Your task to perform on an android device: Check the news Image 0: 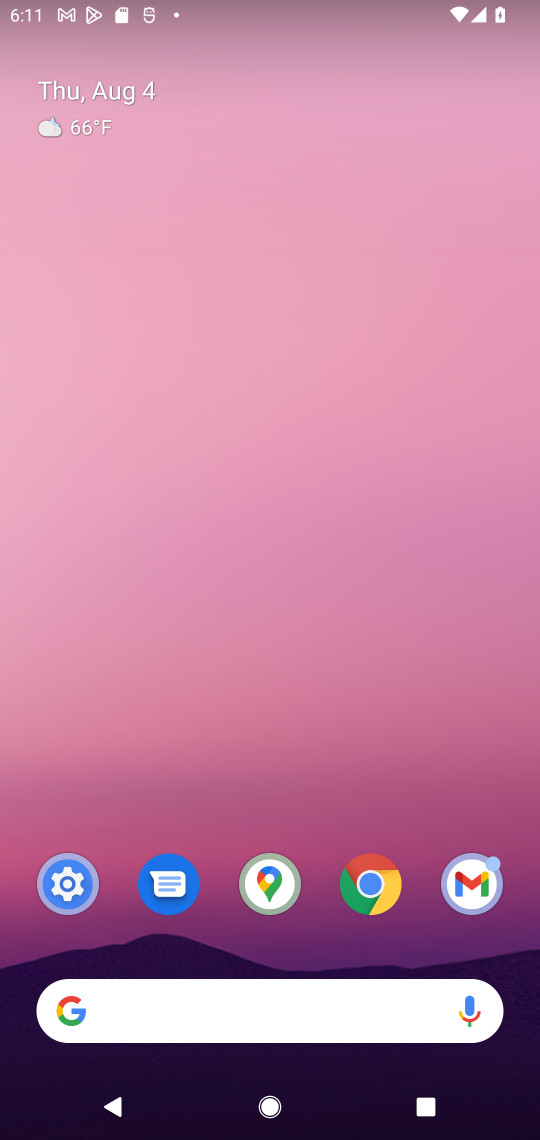
Step 0: drag from (435, 933) to (367, 46)
Your task to perform on an android device: Check the news Image 1: 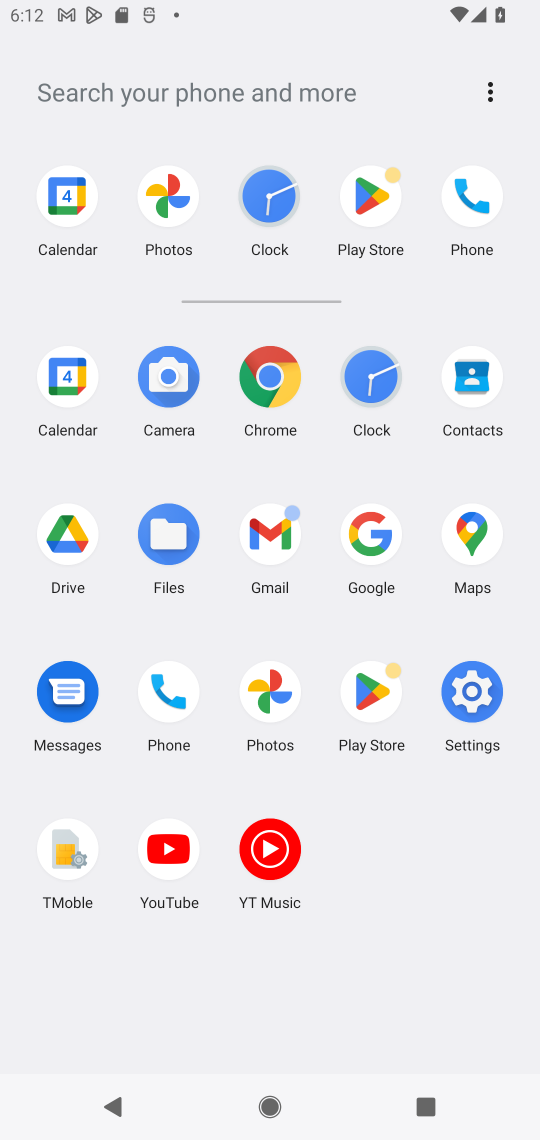
Step 1: click (203, 79)
Your task to perform on an android device: Check the news Image 2: 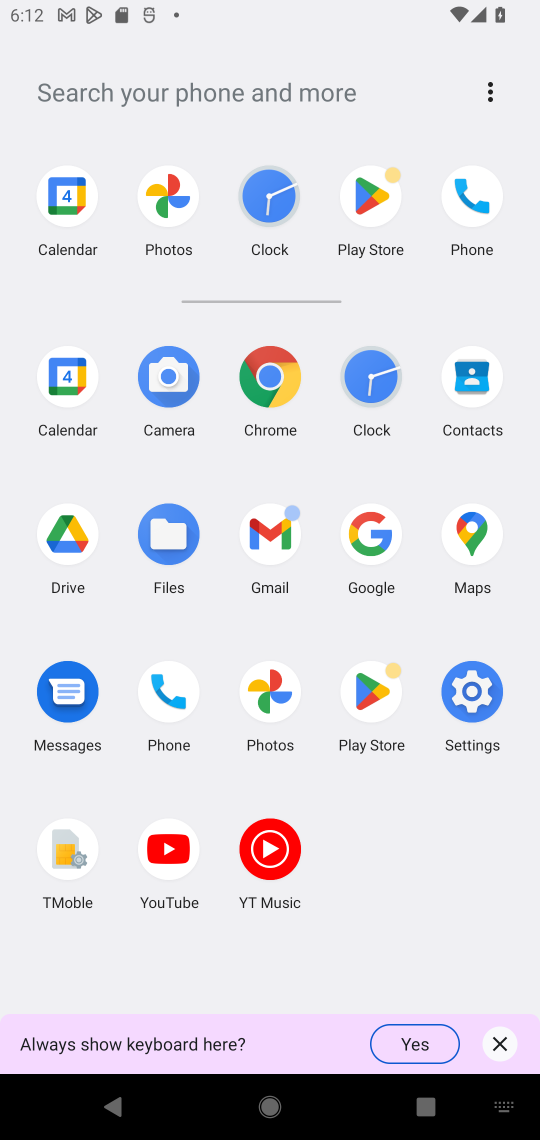
Step 2: type "news"
Your task to perform on an android device: Check the news Image 3: 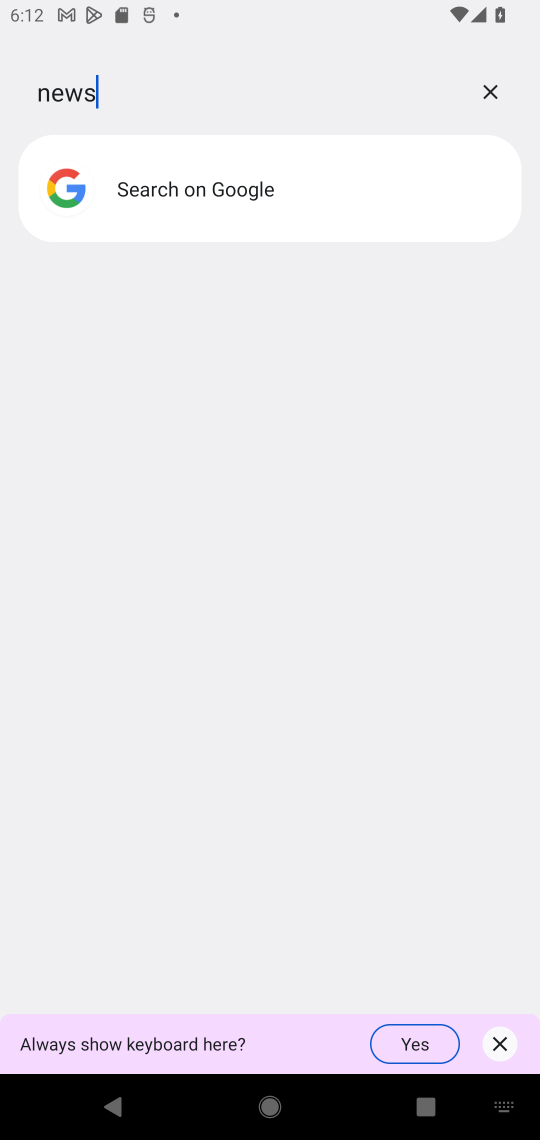
Step 3: task complete